Your task to perform on an android device: When is my next appointment? Image 0: 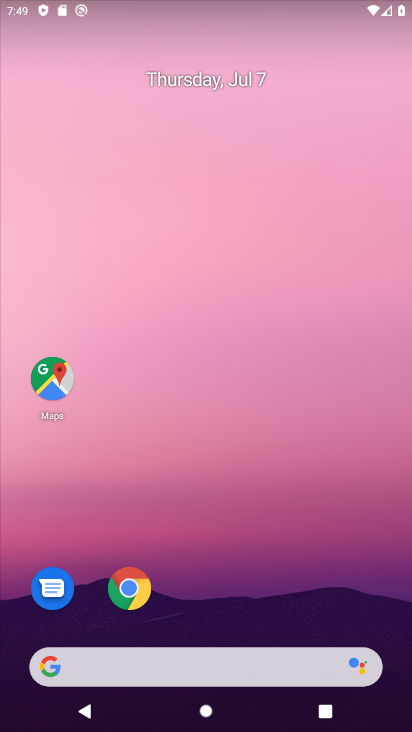
Step 0: drag from (28, 707) to (174, 168)
Your task to perform on an android device: When is my next appointment? Image 1: 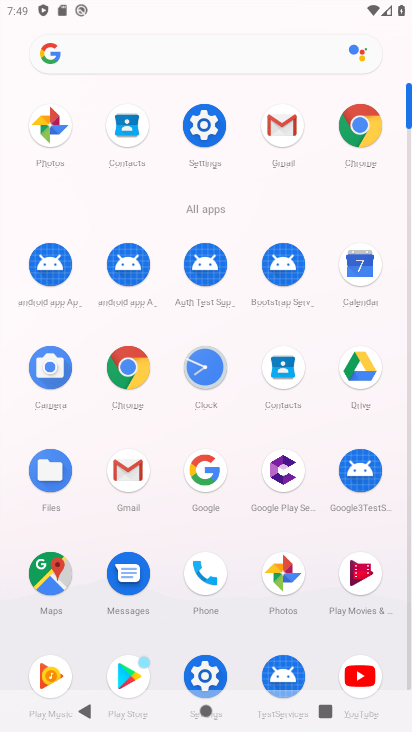
Step 1: click (353, 267)
Your task to perform on an android device: When is my next appointment? Image 2: 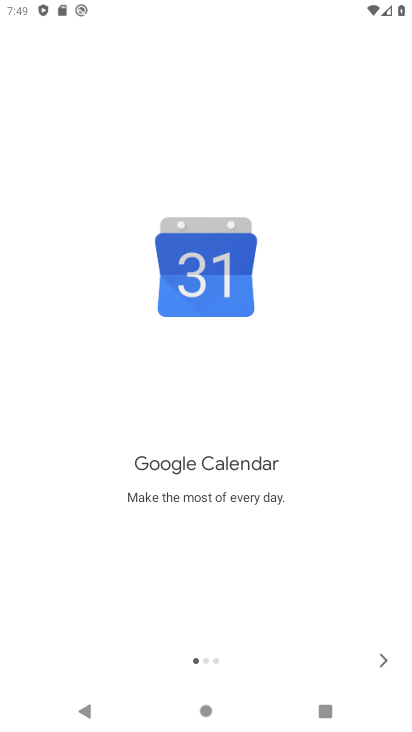
Step 2: click (384, 658)
Your task to perform on an android device: When is my next appointment? Image 3: 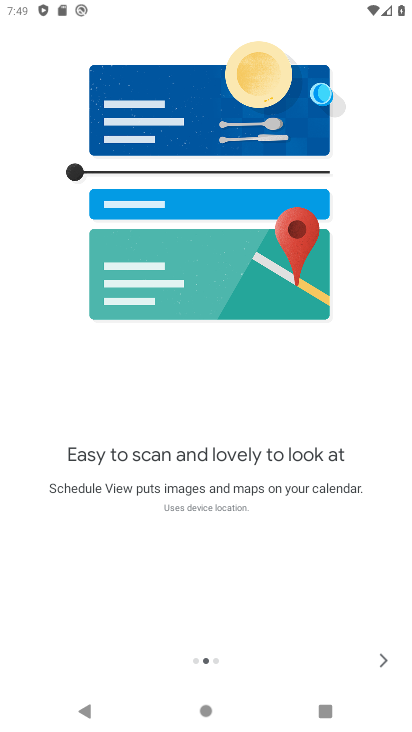
Step 3: click (380, 665)
Your task to perform on an android device: When is my next appointment? Image 4: 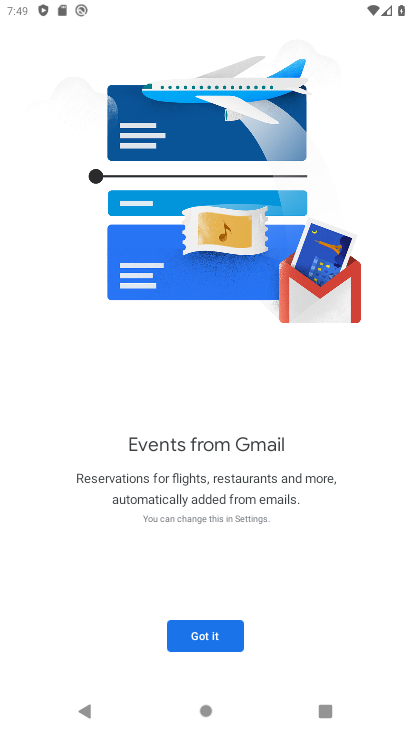
Step 4: click (227, 622)
Your task to perform on an android device: When is my next appointment? Image 5: 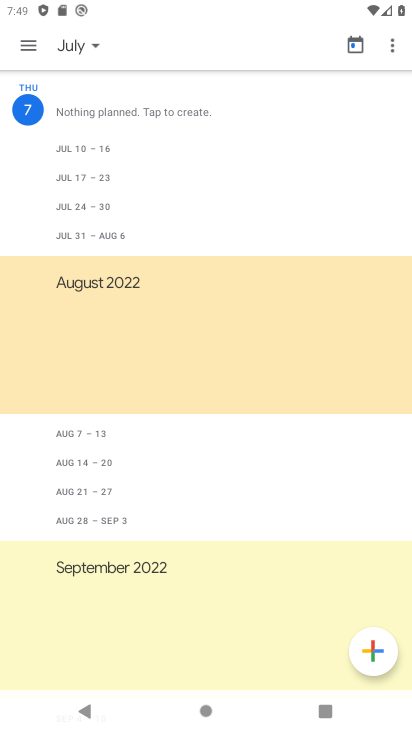
Step 5: click (73, 48)
Your task to perform on an android device: When is my next appointment? Image 6: 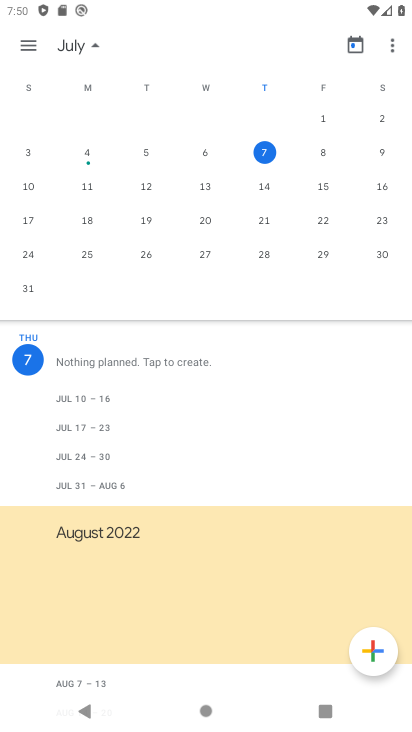
Step 6: click (22, 40)
Your task to perform on an android device: When is my next appointment? Image 7: 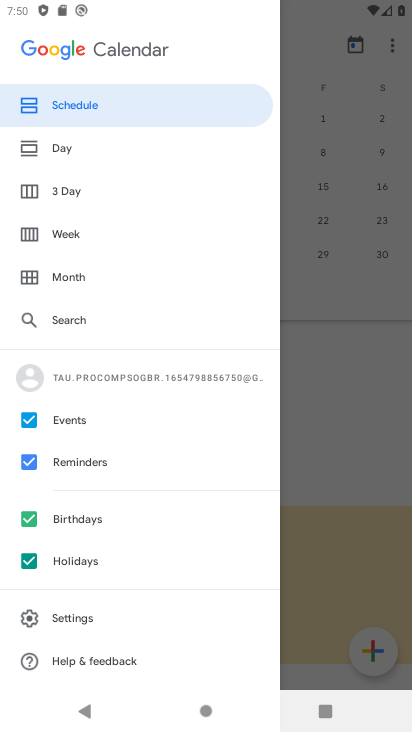
Step 7: task complete